Your task to perform on an android device: delete the emails in spam in the gmail app Image 0: 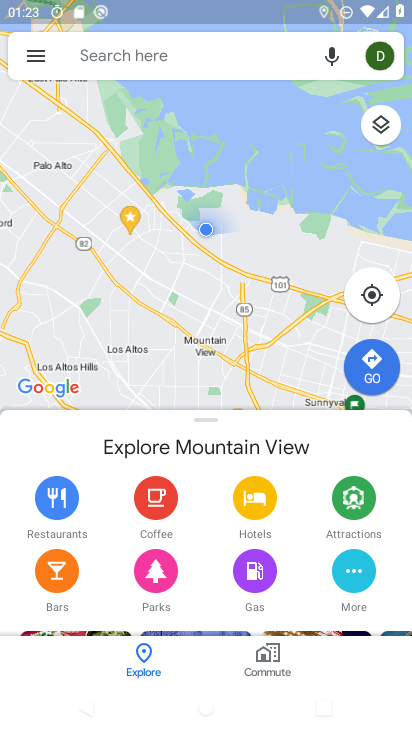
Step 0: press home button
Your task to perform on an android device: delete the emails in spam in the gmail app Image 1: 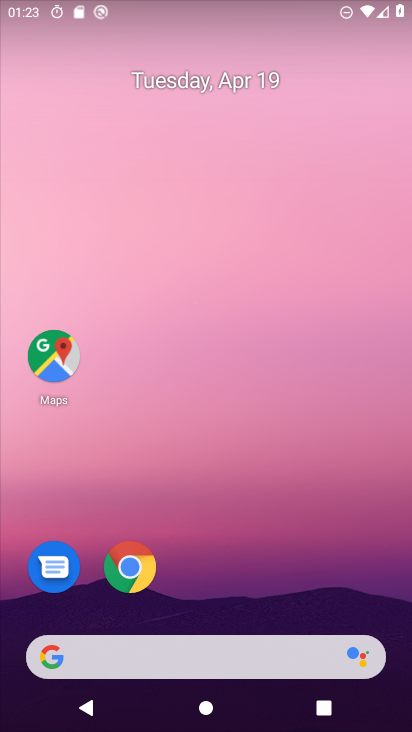
Step 1: drag from (230, 582) to (272, 136)
Your task to perform on an android device: delete the emails in spam in the gmail app Image 2: 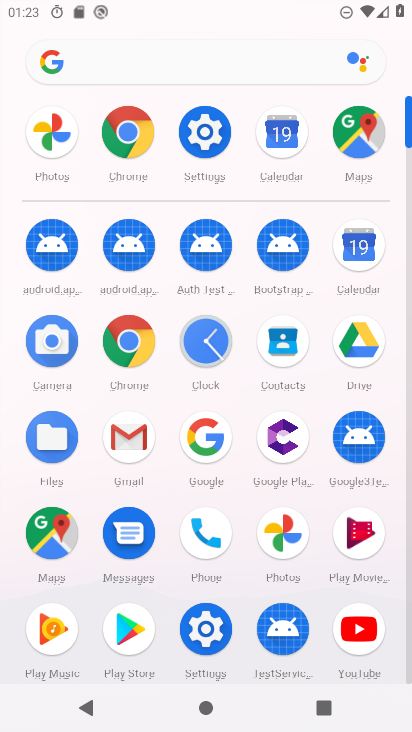
Step 2: click (138, 434)
Your task to perform on an android device: delete the emails in spam in the gmail app Image 3: 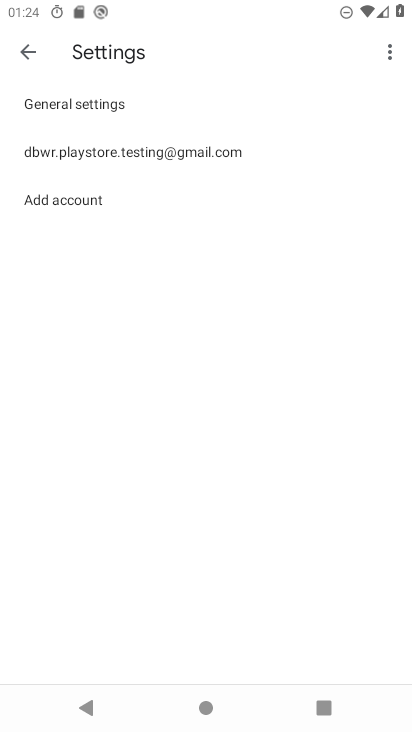
Step 3: click (31, 45)
Your task to perform on an android device: delete the emails in spam in the gmail app Image 4: 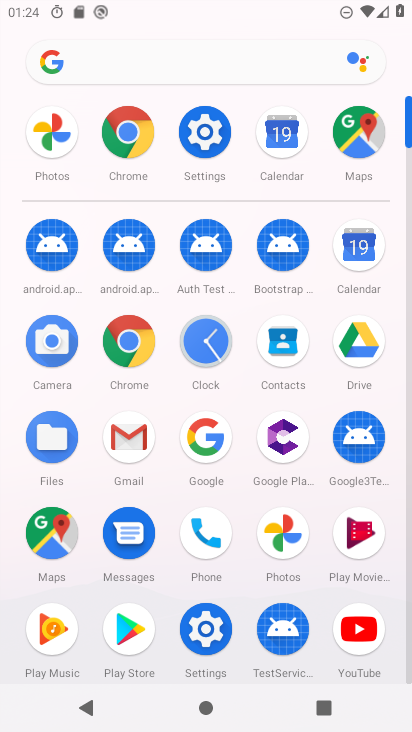
Step 4: click (139, 427)
Your task to perform on an android device: delete the emails in spam in the gmail app Image 5: 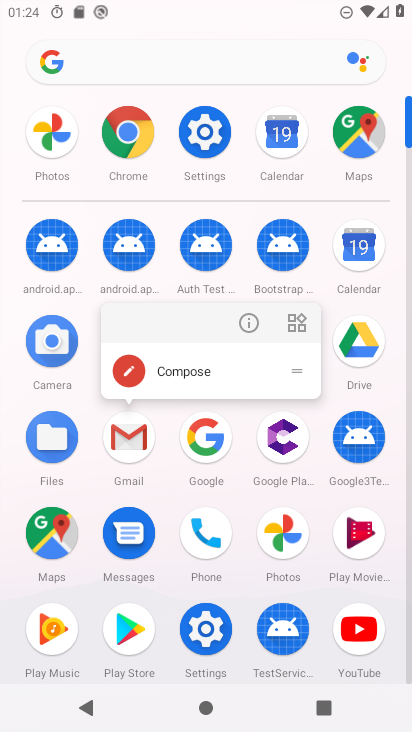
Step 5: click (136, 437)
Your task to perform on an android device: delete the emails in spam in the gmail app Image 6: 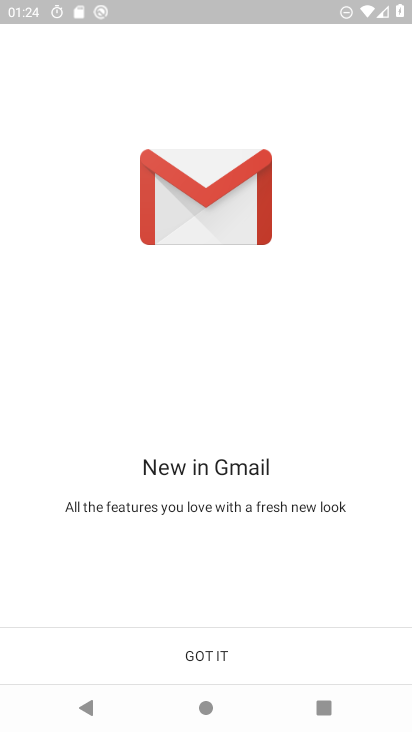
Step 6: click (232, 654)
Your task to perform on an android device: delete the emails in spam in the gmail app Image 7: 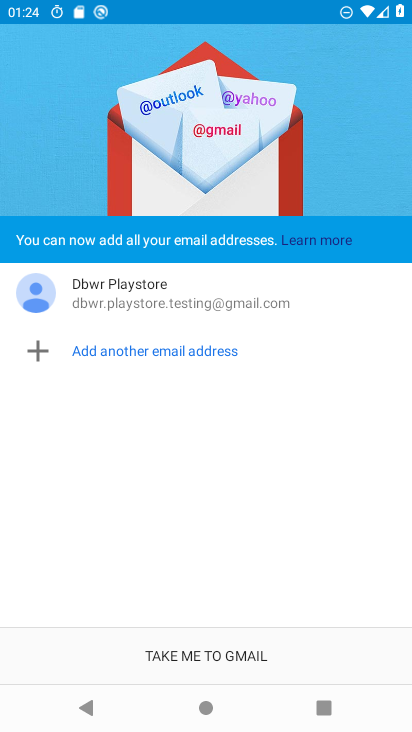
Step 7: click (232, 653)
Your task to perform on an android device: delete the emails in spam in the gmail app Image 8: 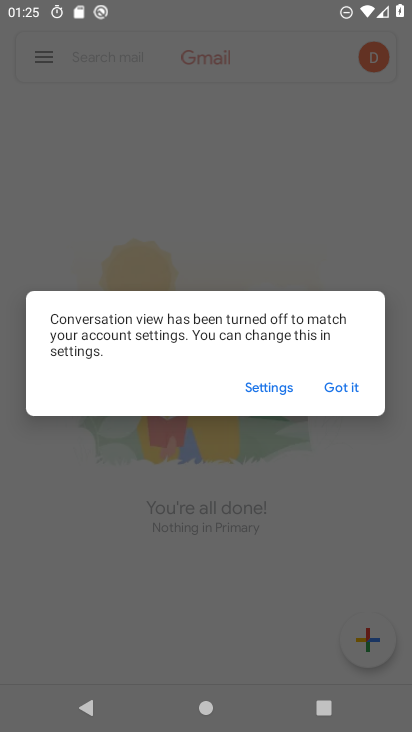
Step 8: click (350, 383)
Your task to perform on an android device: delete the emails in spam in the gmail app Image 9: 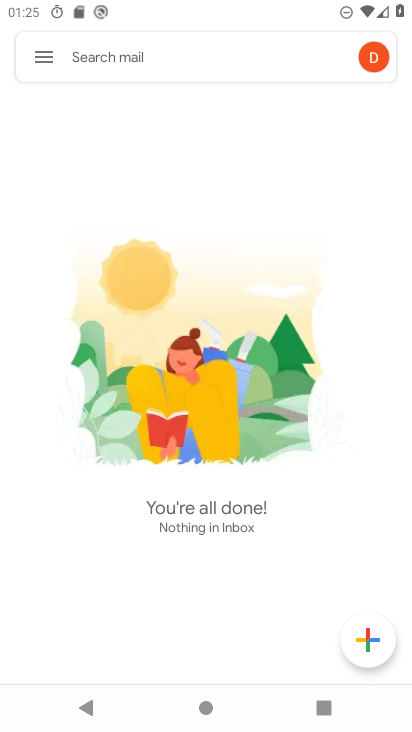
Step 9: click (29, 56)
Your task to perform on an android device: delete the emails in spam in the gmail app Image 10: 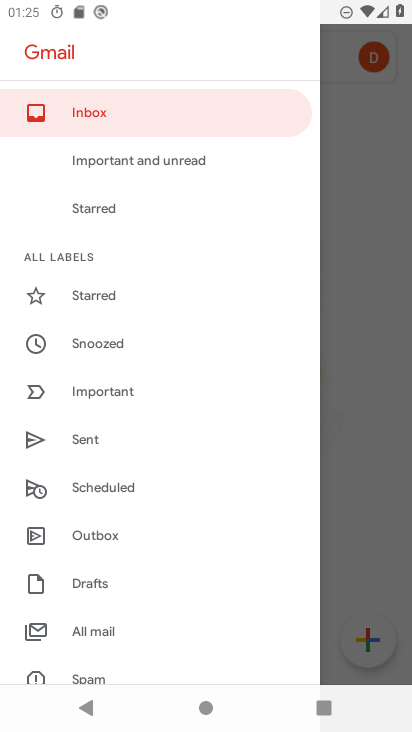
Step 10: drag from (200, 655) to (176, 348)
Your task to perform on an android device: delete the emails in spam in the gmail app Image 11: 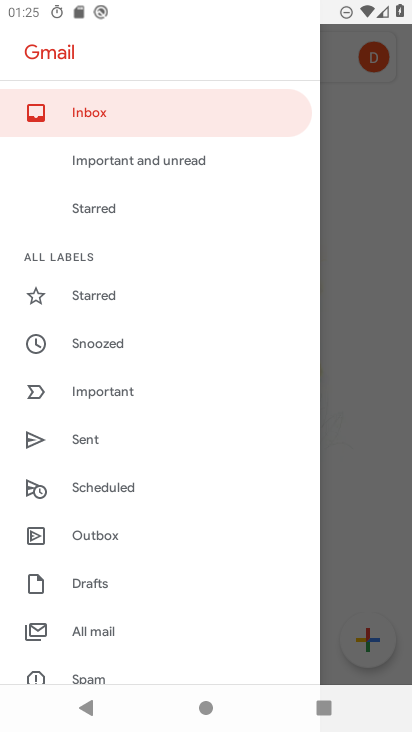
Step 11: click (85, 670)
Your task to perform on an android device: delete the emails in spam in the gmail app Image 12: 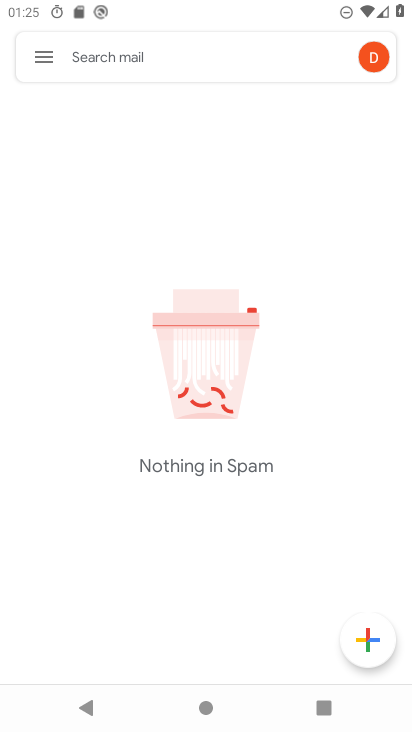
Step 12: task complete